Your task to perform on an android device: turn off notifications settings in the gmail app Image 0: 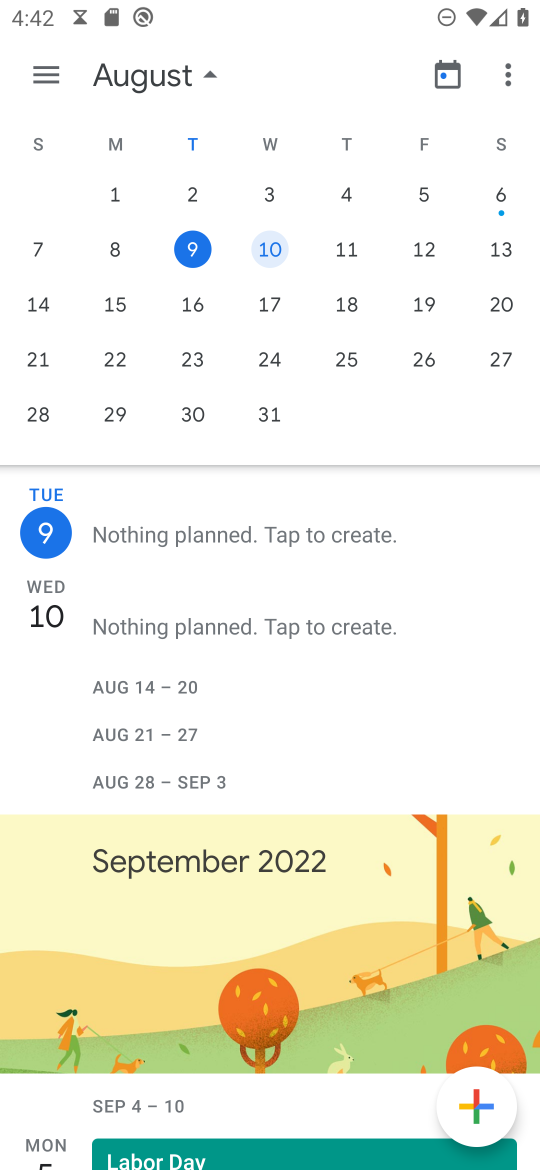
Step 0: press home button
Your task to perform on an android device: turn off notifications settings in the gmail app Image 1: 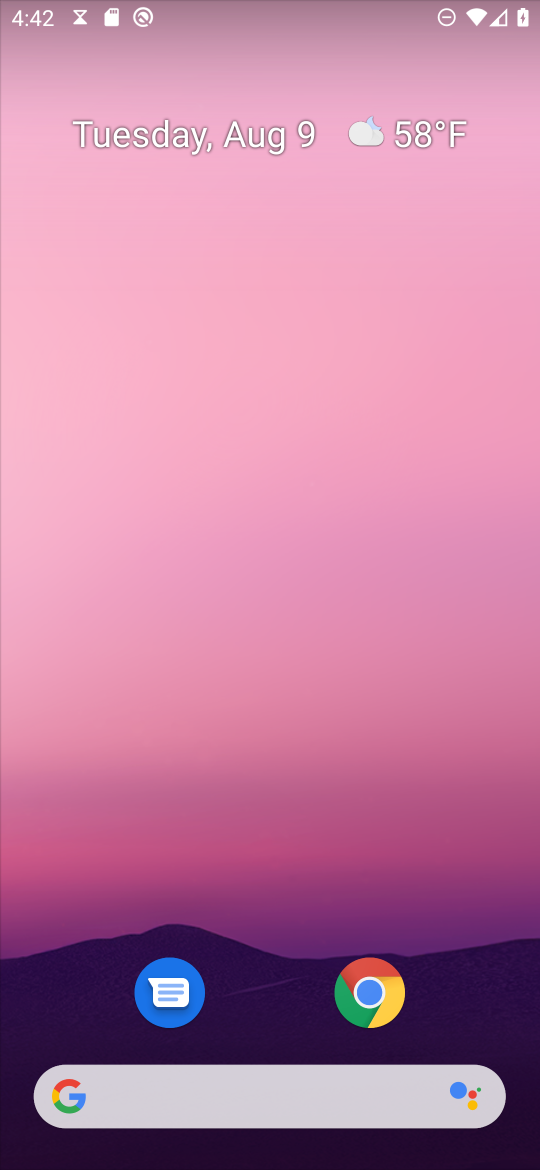
Step 1: drag from (336, 1106) to (299, 74)
Your task to perform on an android device: turn off notifications settings in the gmail app Image 2: 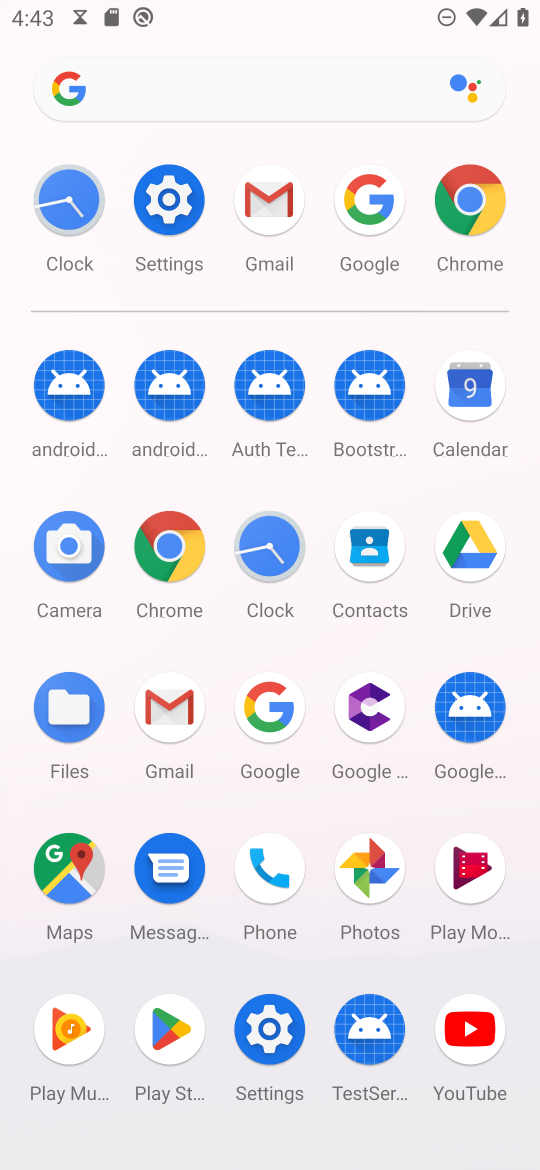
Step 2: click (172, 705)
Your task to perform on an android device: turn off notifications settings in the gmail app Image 3: 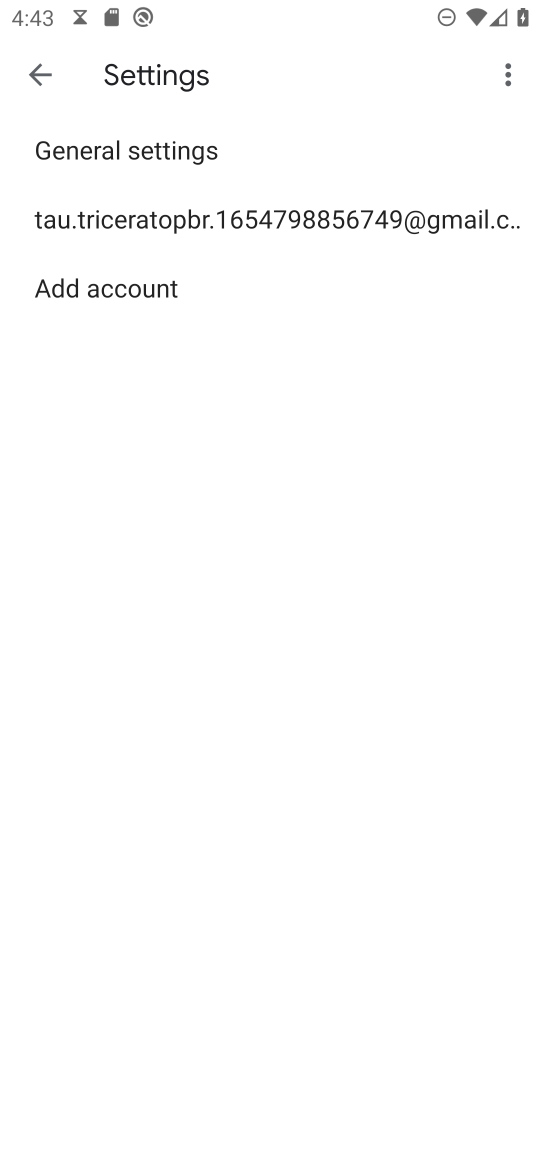
Step 3: click (232, 208)
Your task to perform on an android device: turn off notifications settings in the gmail app Image 4: 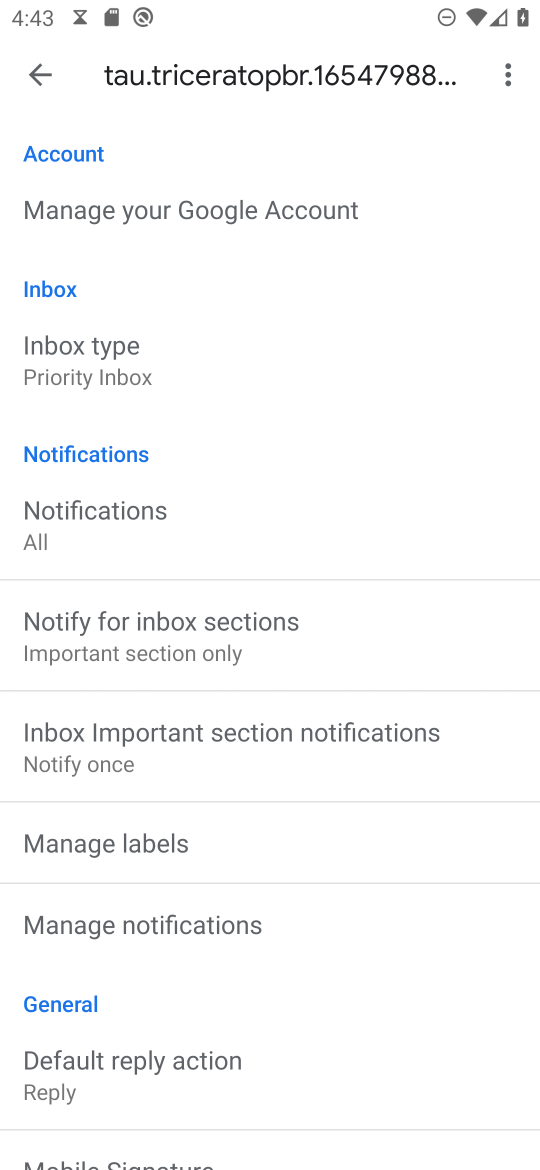
Step 4: click (163, 917)
Your task to perform on an android device: turn off notifications settings in the gmail app Image 5: 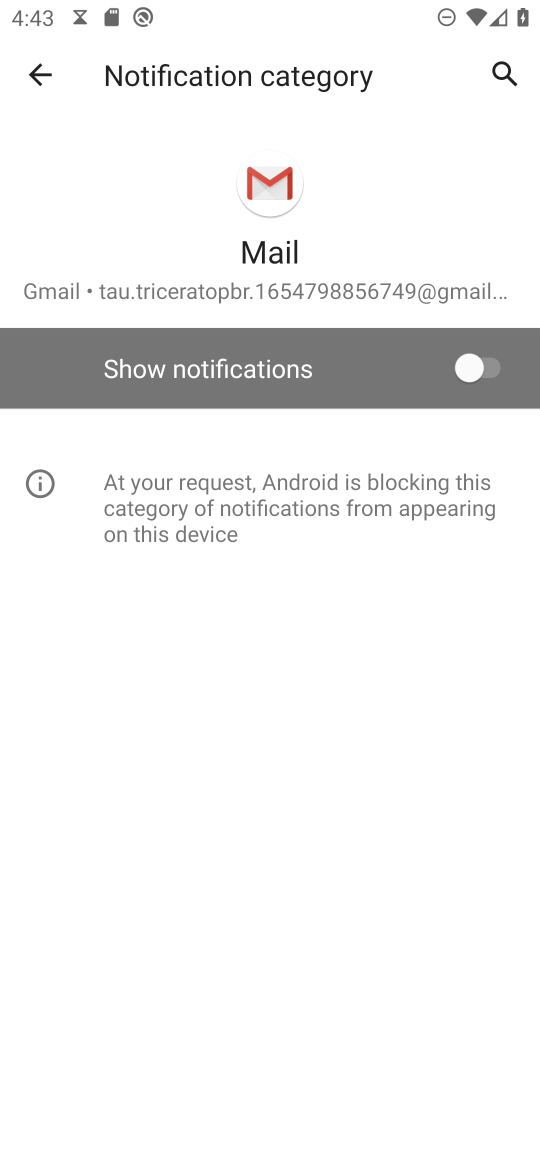
Step 5: task complete